Your task to perform on an android device: turn smart compose on in the gmail app Image 0: 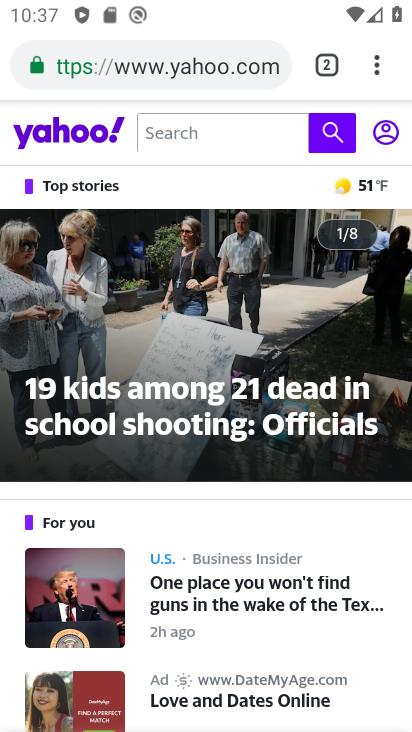
Step 0: press home button
Your task to perform on an android device: turn smart compose on in the gmail app Image 1: 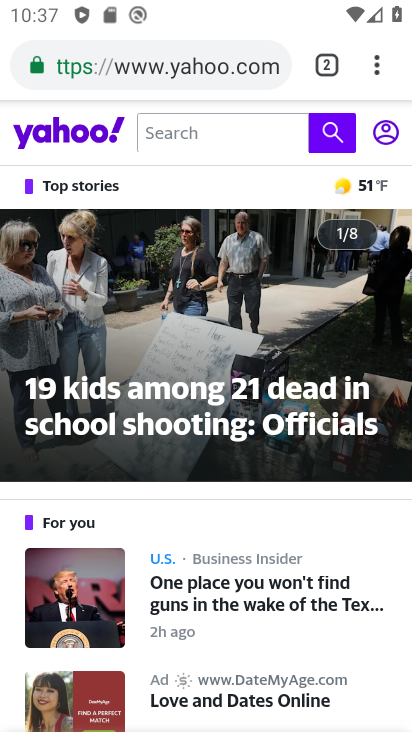
Step 1: press home button
Your task to perform on an android device: turn smart compose on in the gmail app Image 2: 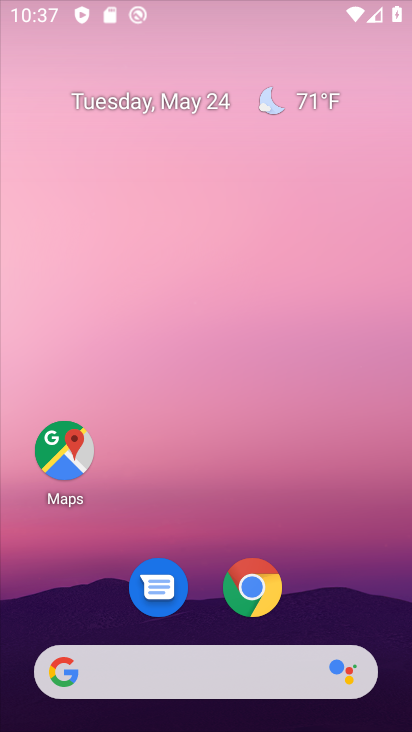
Step 2: press home button
Your task to perform on an android device: turn smart compose on in the gmail app Image 3: 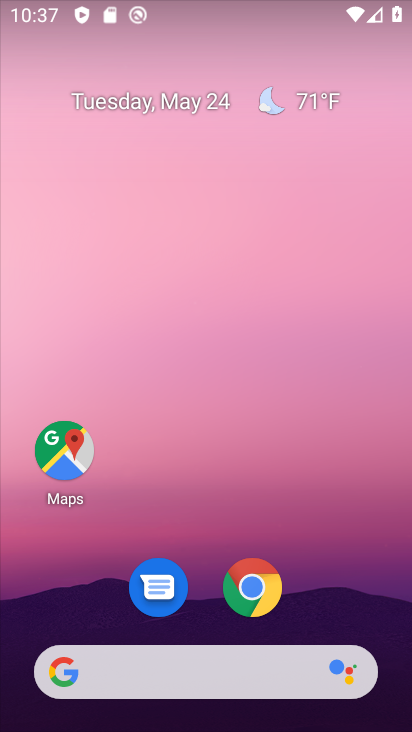
Step 3: drag from (304, 584) to (181, 201)
Your task to perform on an android device: turn smart compose on in the gmail app Image 4: 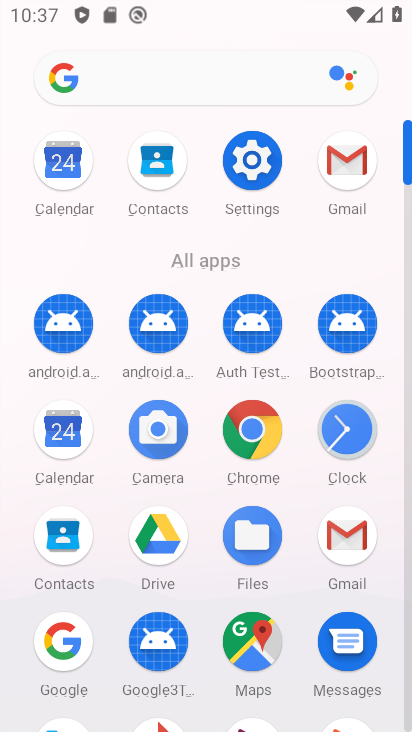
Step 4: click (334, 548)
Your task to perform on an android device: turn smart compose on in the gmail app Image 5: 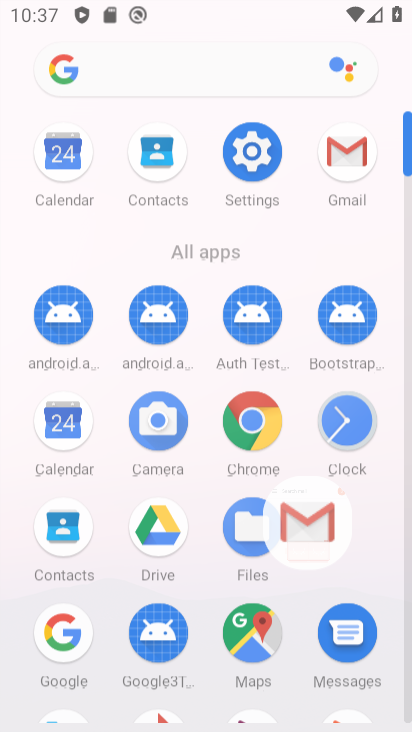
Step 5: click (333, 541)
Your task to perform on an android device: turn smart compose on in the gmail app Image 6: 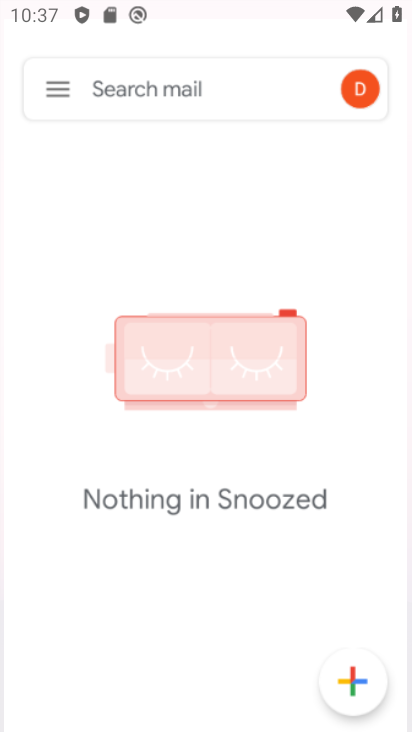
Step 6: click (334, 540)
Your task to perform on an android device: turn smart compose on in the gmail app Image 7: 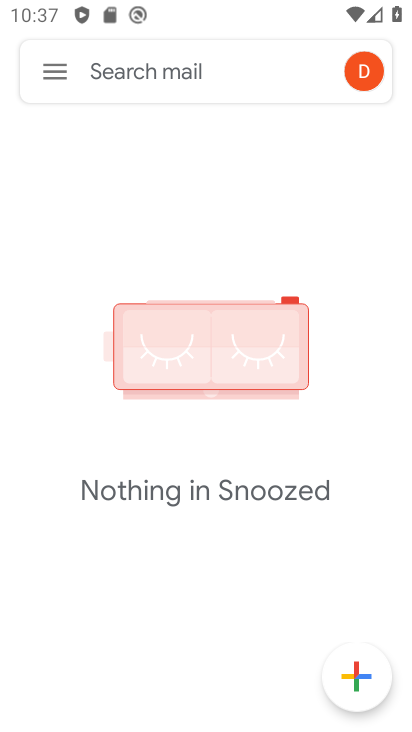
Step 7: click (57, 65)
Your task to perform on an android device: turn smart compose on in the gmail app Image 8: 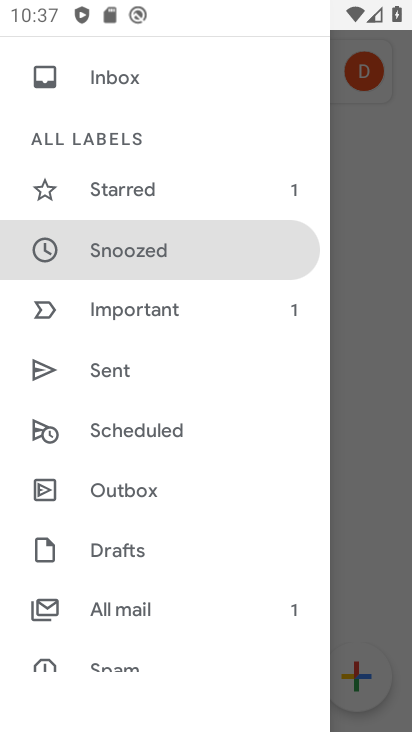
Step 8: drag from (140, 522) to (108, 194)
Your task to perform on an android device: turn smart compose on in the gmail app Image 9: 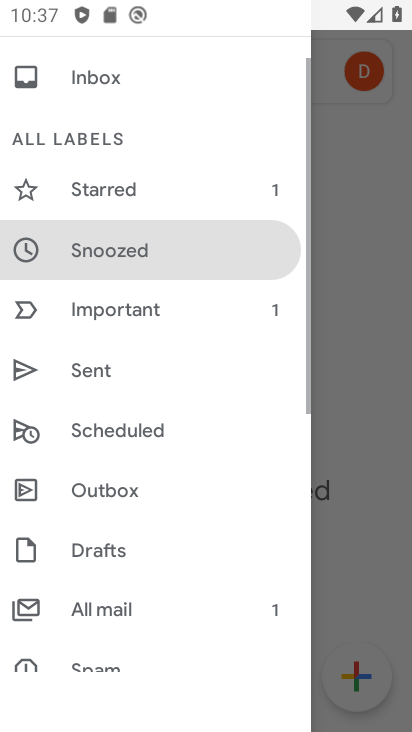
Step 9: drag from (178, 524) to (158, 275)
Your task to perform on an android device: turn smart compose on in the gmail app Image 10: 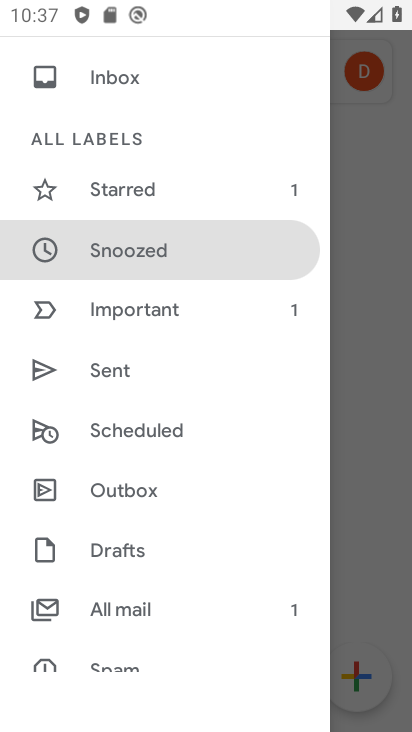
Step 10: drag from (112, 429) to (113, 236)
Your task to perform on an android device: turn smart compose on in the gmail app Image 11: 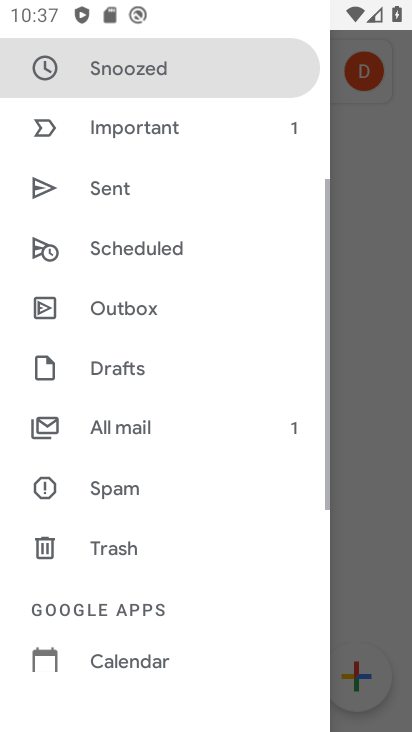
Step 11: drag from (181, 288) to (209, 135)
Your task to perform on an android device: turn smart compose on in the gmail app Image 12: 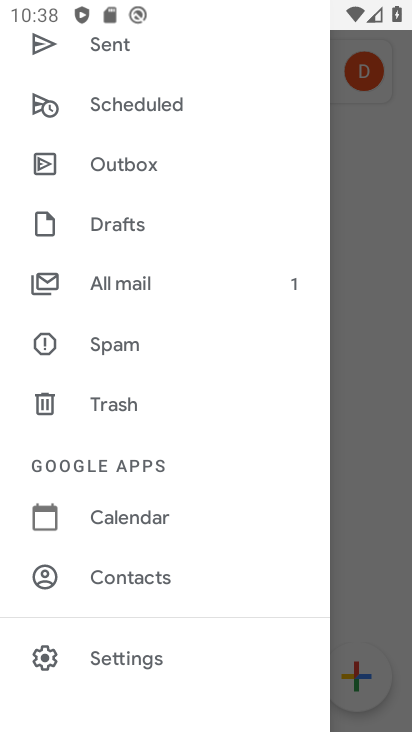
Step 12: click (131, 653)
Your task to perform on an android device: turn smart compose on in the gmail app Image 13: 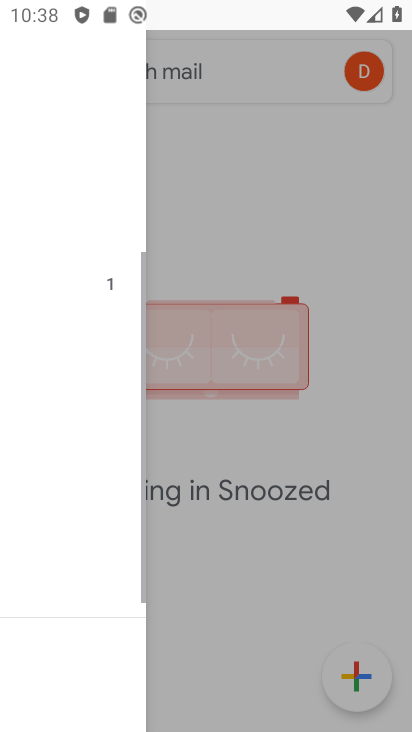
Step 13: click (130, 654)
Your task to perform on an android device: turn smart compose on in the gmail app Image 14: 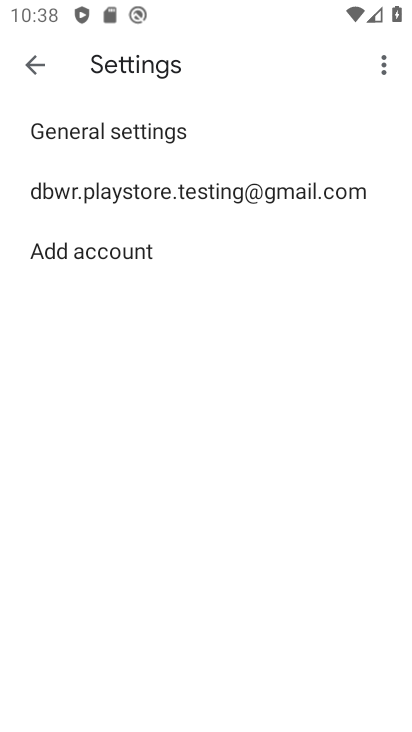
Step 14: click (190, 185)
Your task to perform on an android device: turn smart compose on in the gmail app Image 15: 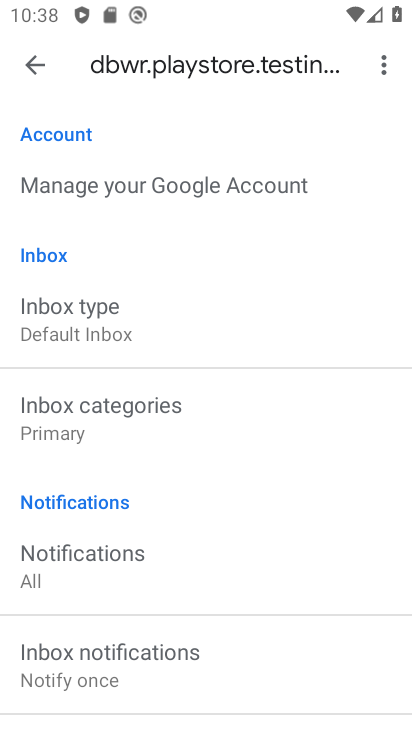
Step 15: drag from (134, 532) to (139, 192)
Your task to perform on an android device: turn smart compose on in the gmail app Image 16: 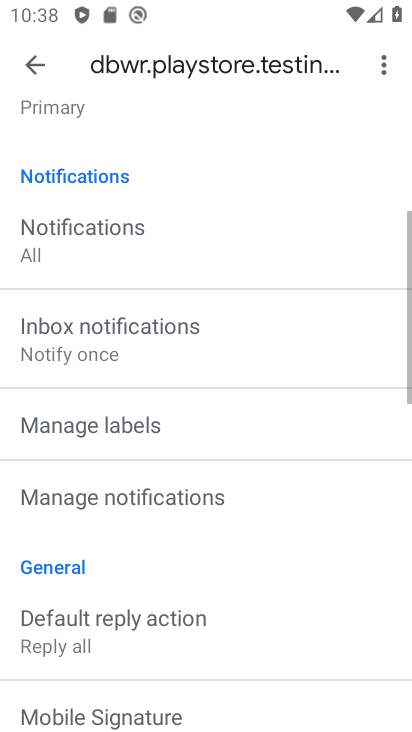
Step 16: drag from (260, 471) to (261, 133)
Your task to perform on an android device: turn smart compose on in the gmail app Image 17: 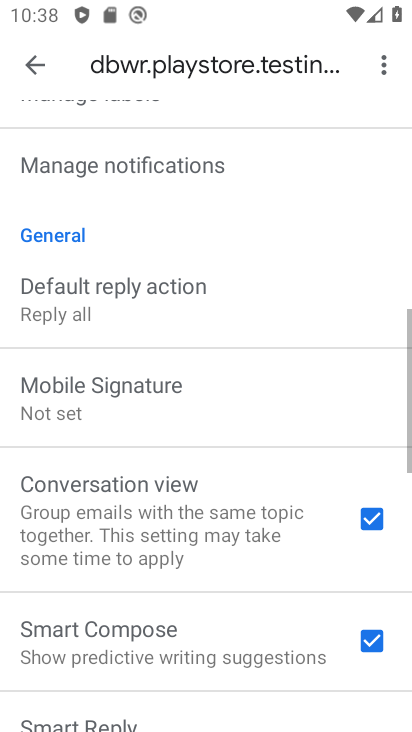
Step 17: drag from (216, 429) to (245, 146)
Your task to perform on an android device: turn smart compose on in the gmail app Image 18: 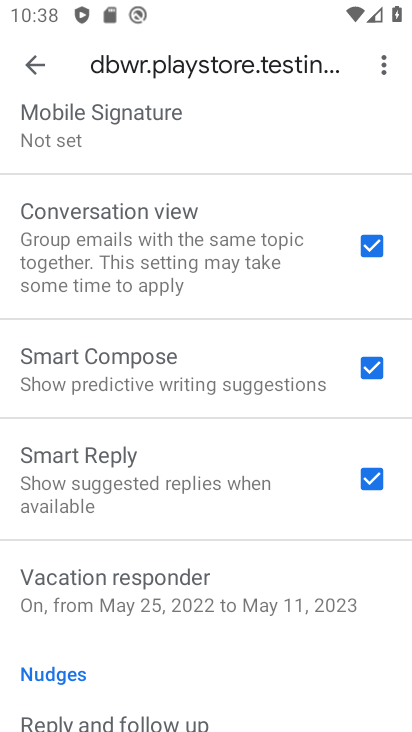
Step 18: click (359, 359)
Your task to perform on an android device: turn smart compose on in the gmail app Image 19: 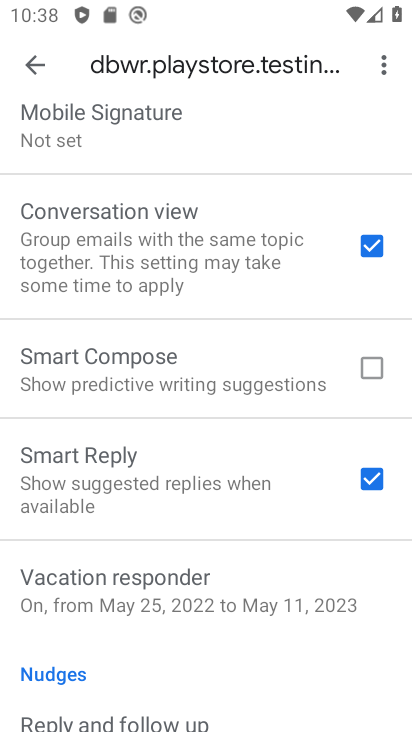
Step 19: task complete